Your task to perform on an android device: Is it going to rain this weekend? Image 0: 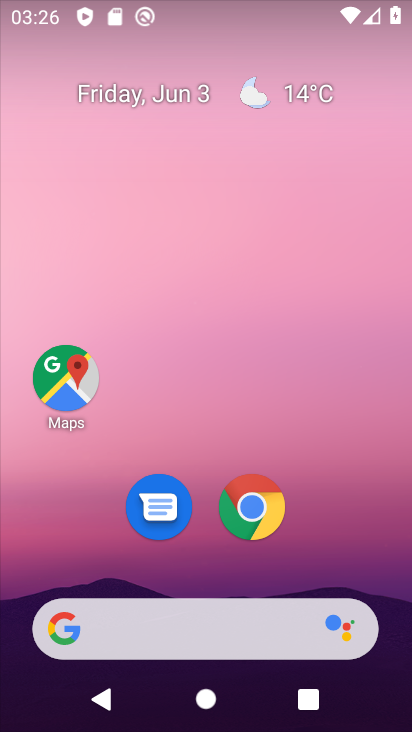
Step 0: press home button
Your task to perform on an android device: Is it going to rain this weekend? Image 1: 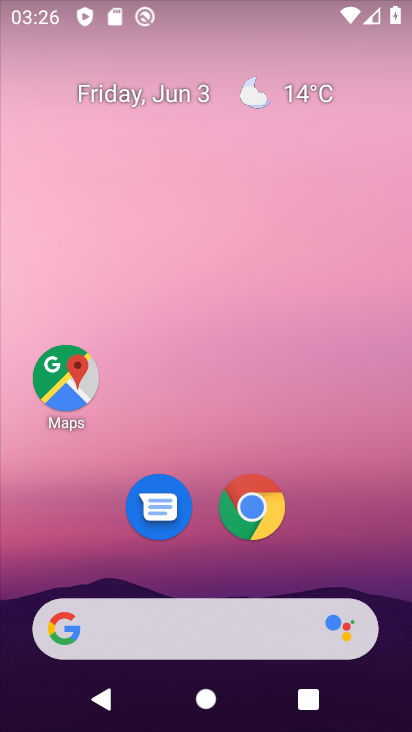
Step 1: click (66, 644)
Your task to perform on an android device: Is it going to rain this weekend? Image 2: 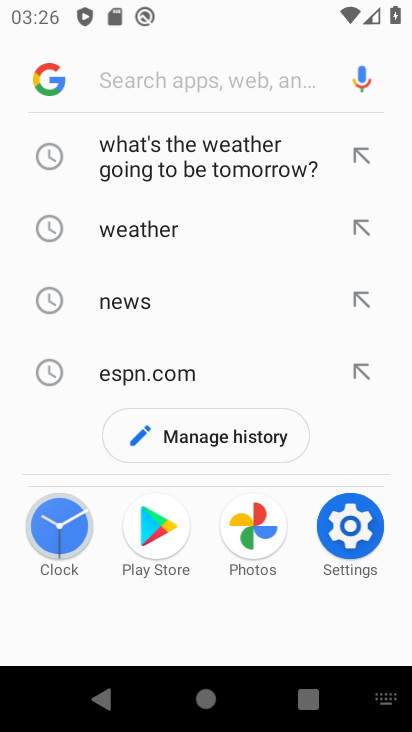
Step 2: type "rain this weekend?"
Your task to perform on an android device: Is it going to rain this weekend? Image 3: 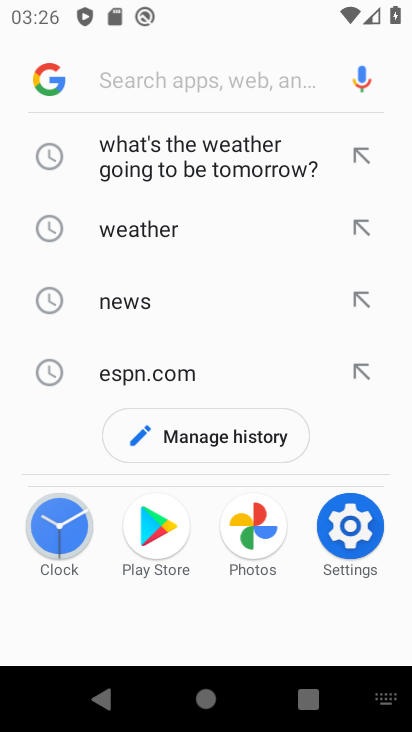
Step 3: click (173, 66)
Your task to perform on an android device: Is it going to rain this weekend? Image 4: 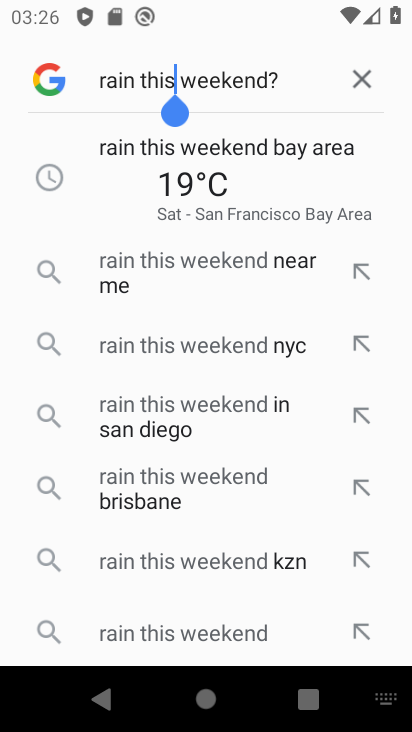
Step 4: click (189, 83)
Your task to perform on an android device: Is it going to rain this weekend? Image 5: 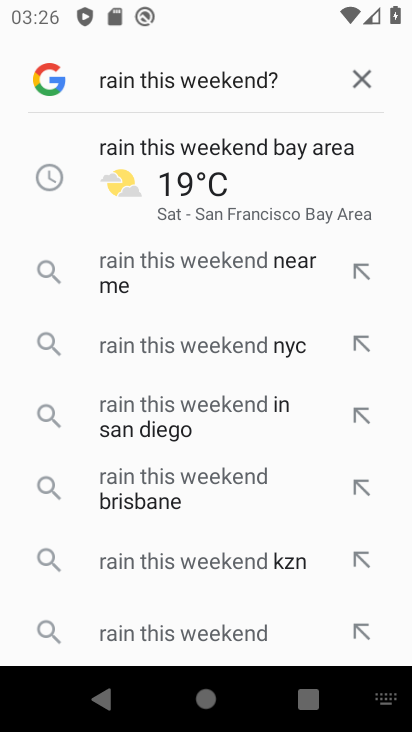
Step 5: click (183, 635)
Your task to perform on an android device: Is it going to rain this weekend? Image 6: 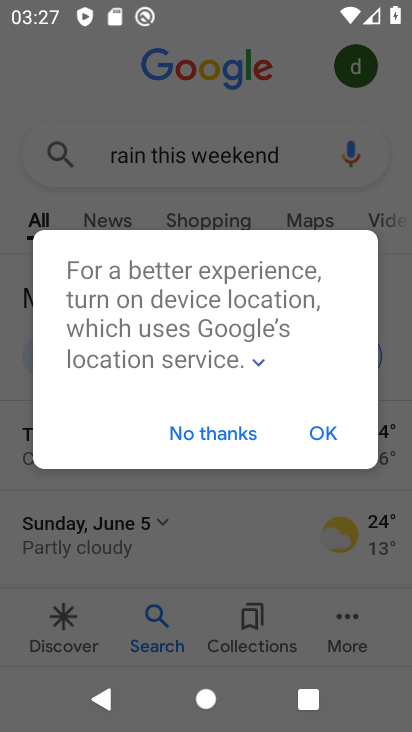
Step 6: click (216, 437)
Your task to perform on an android device: Is it going to rain this weekend? Image 7: 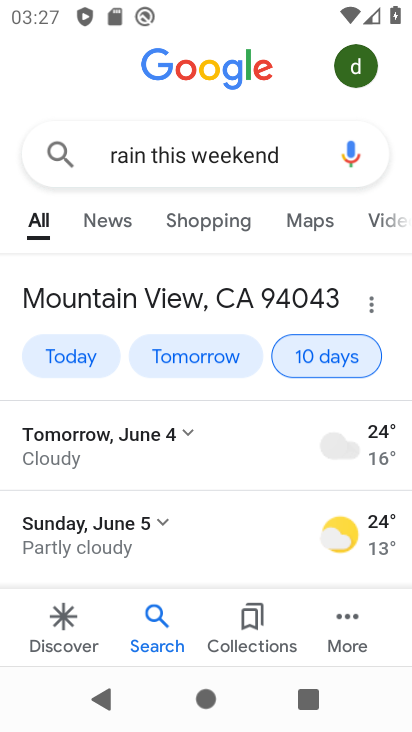
Step 7: task complete